Your task to perform on an android device: open a new tab in the chrome app Image 0: 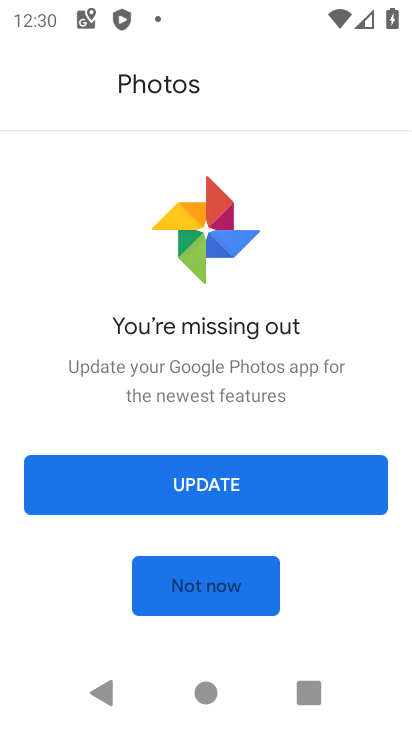
Step 0: press home button
Your task to perform on an android device: open a new tab in the chrome app Image 1: 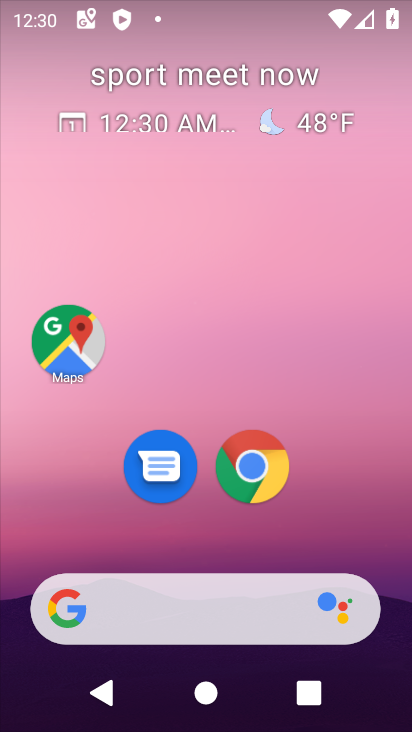
Step 1: click (249, 455)
Your task to perform on an android device: open a new tab in the chrome app Image 2: 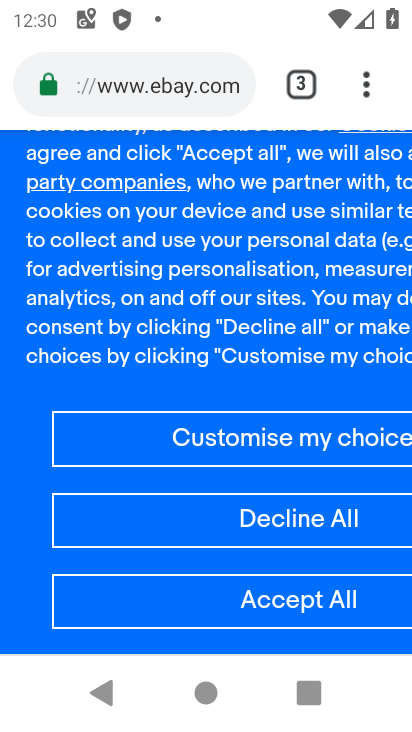
Step 2: click (364, 83)
Your task to perform on an android device: open a new tab in the chrome app Image 3: 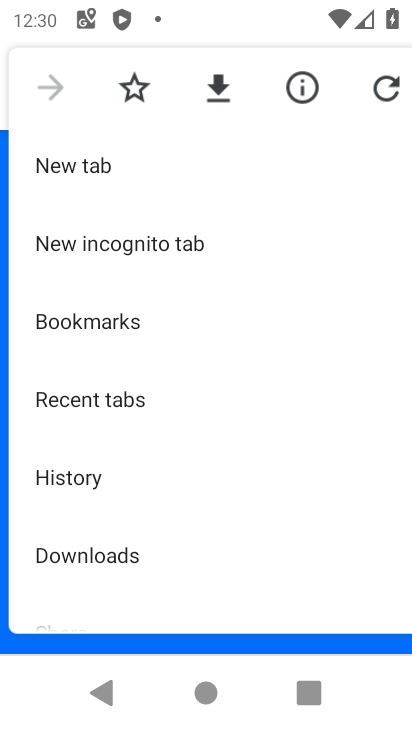
Step 3: click (59, 155)
Your task to perform on an android device: open a new tab in the chrome app Image 4: 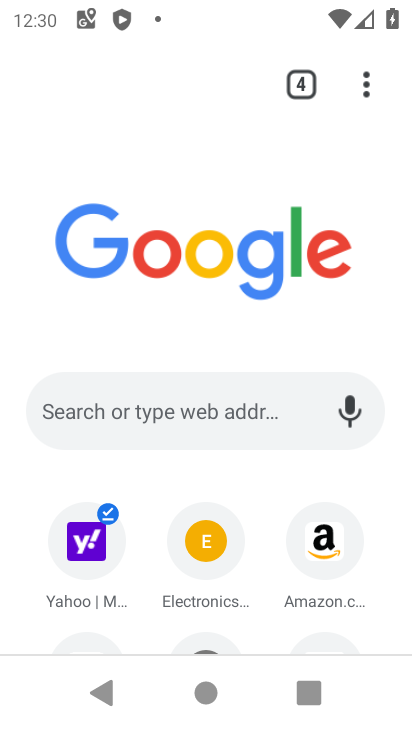
Step 4: task complete